Your task to perform on an android device: Go to eBay Image 0: 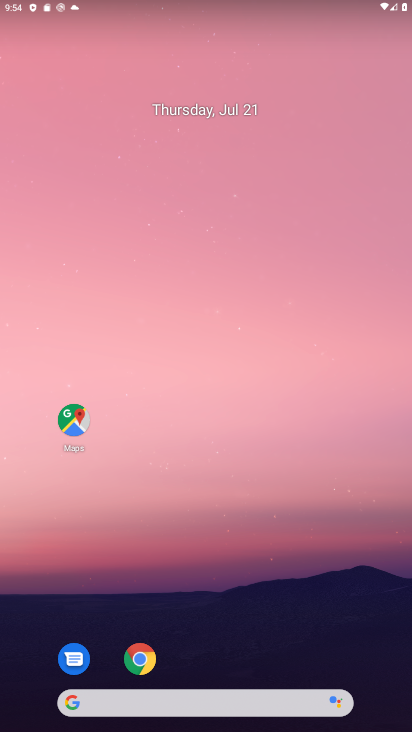
Step 0: click (152, 699)
Your task to perform on an android device: Go to eBay Image 1: 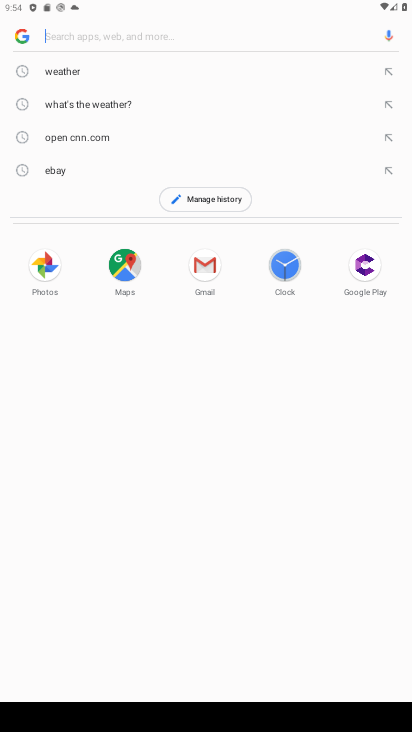
Step 1: type "ebat.com"
Your task to perform on an android device: Go to eBay Image 2: 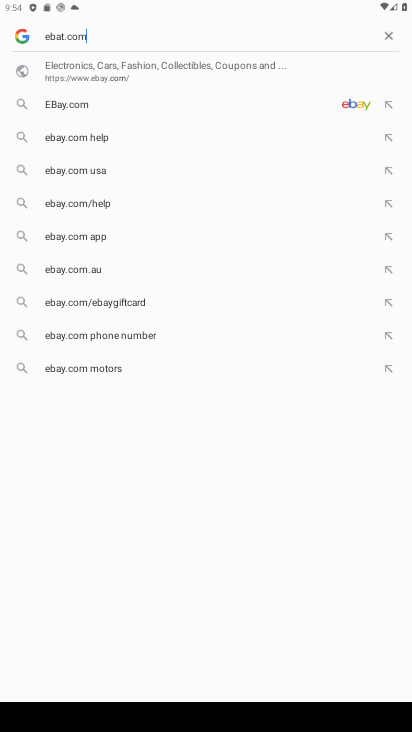
Step 2: click (84, 73)
Your task to perform on an android device: Go to eBay Image 3: 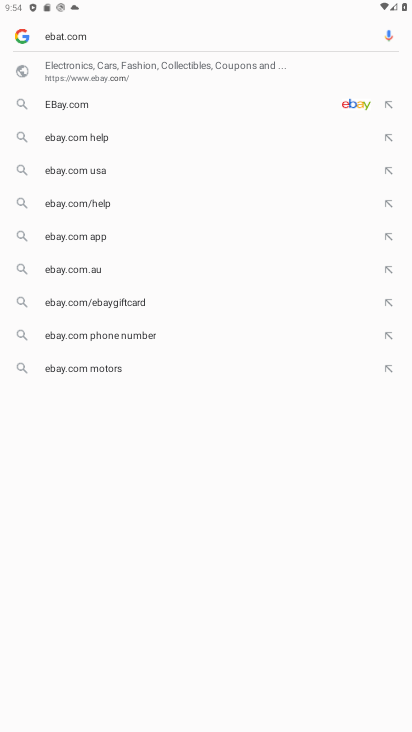
Step 3: task complete